Your task to perform on an android device: turn vacation reply on in the gmail app Image 0: 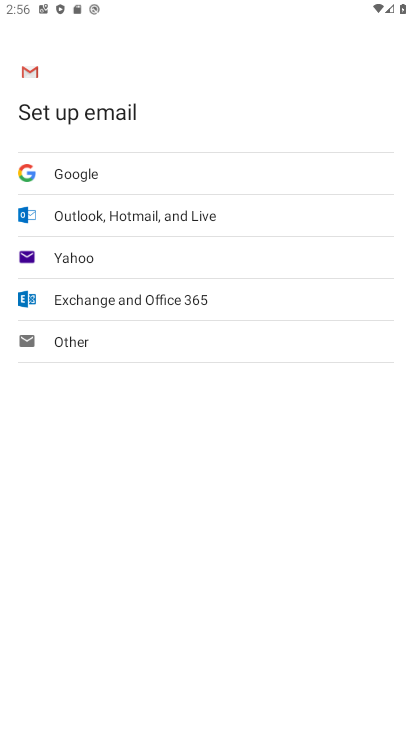
Step 0: press home button
Your task to perform on an android device: turn vacation reply on in the gmail app Image 1: 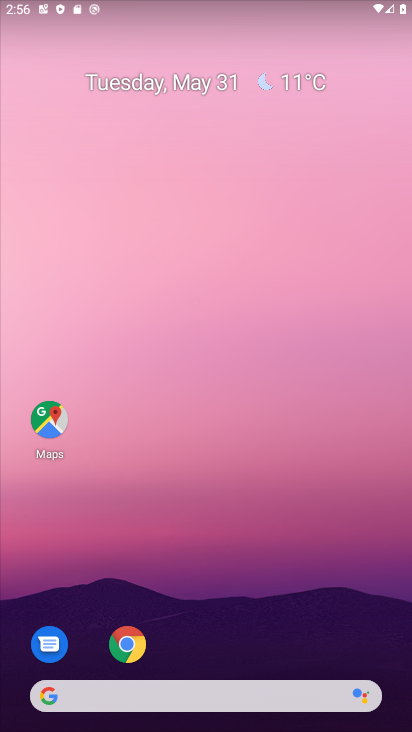
Step 1: click (254, 441)
Your task to perform on an android device: turn vacation reply on in the gmail app Image 2: 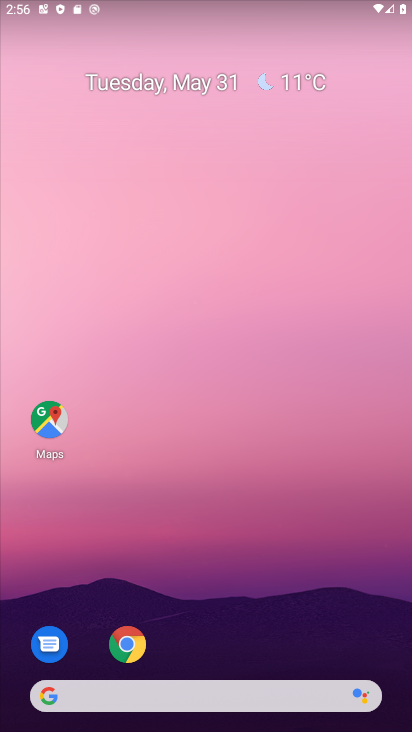
Step 2: drag from (246, 616) to (229, 208)
Your task to perform on an android device: turn vacation reply on in the gmail app Image 3: 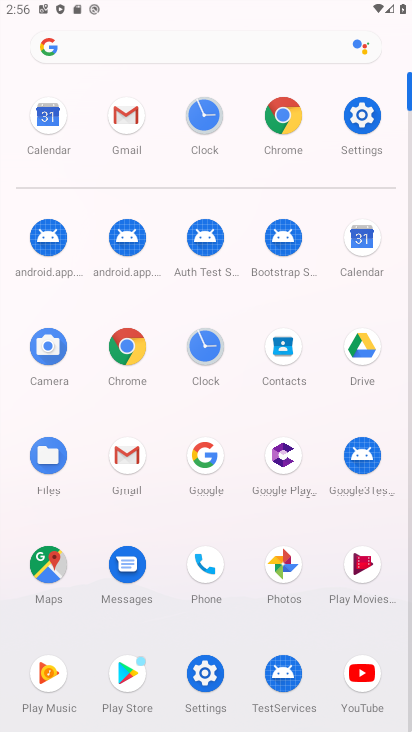
Step 3: click (129, 125)
Your task to perform on an android device: turn vacation reply on in the gmail app Image 4: 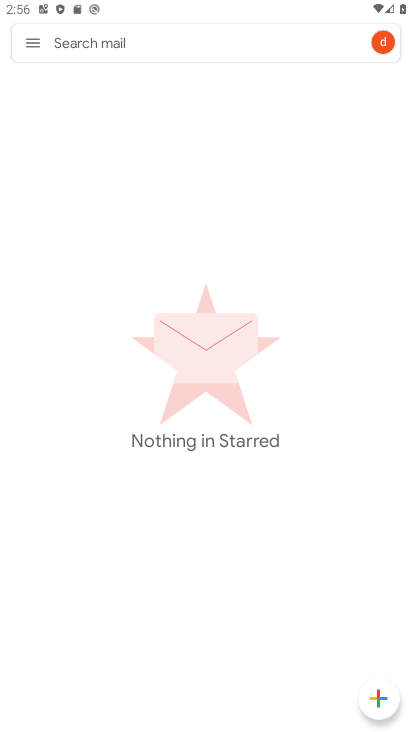
Step 4: click (31, 38)
Your task to perform on an android device: turn vacation reply on in the gmail app Image 5: 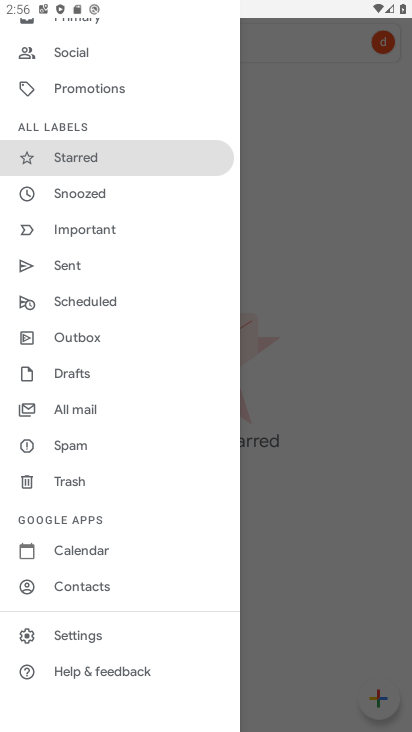
Step 5: click (71, 641)
Your task to perform on an android device: turn vacation reply on in the gmail app Image 6: 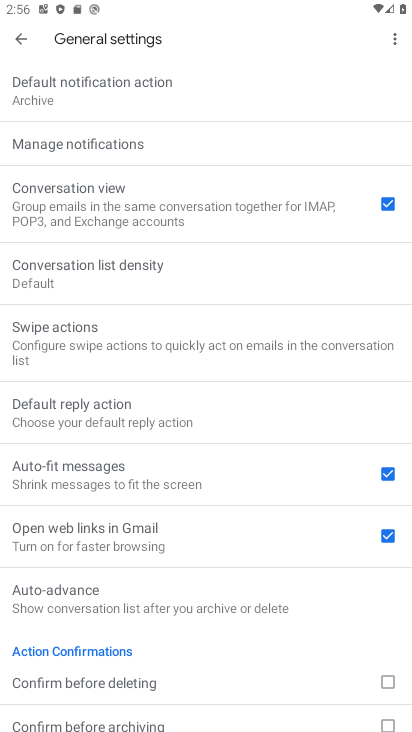
Step 6: drag from (189, 98) to (203, 530)
Your task to perform on an android device: turn vacation reply on in the gmail app Image 7: 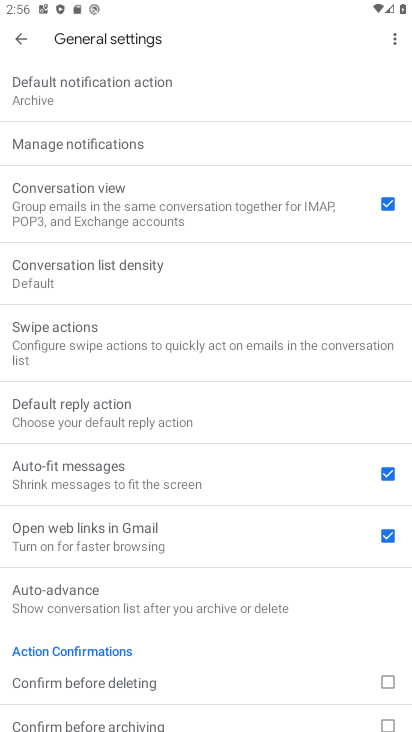
Step 7: drag from (208, 546) to (220, 271)
Your task to perform on an android device: turn vacation reply on in the gmail app Image 8: 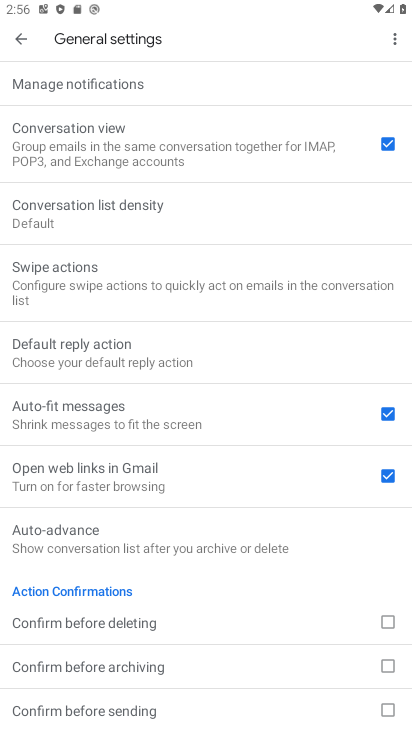
Step 8: drag from (165, 255) to (182, 640)
Your task to perform on an android device: turn vacation reply on in the gmail app Image 9: 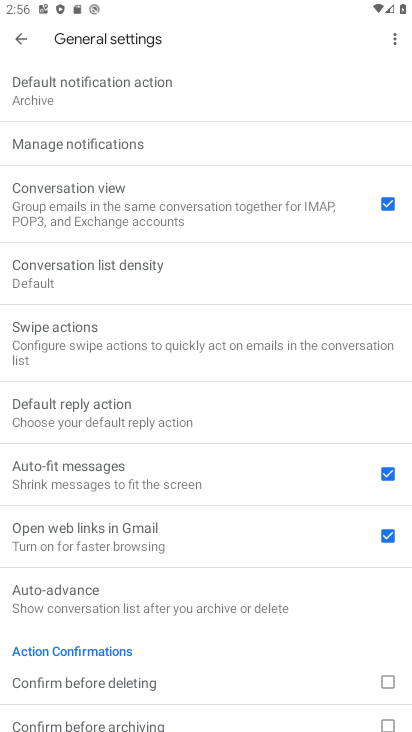
Step 9: drag from (117, 672) to (193, 287)
Your task to perform on an android device: turn vacation reply on in the gmail app Image 10: 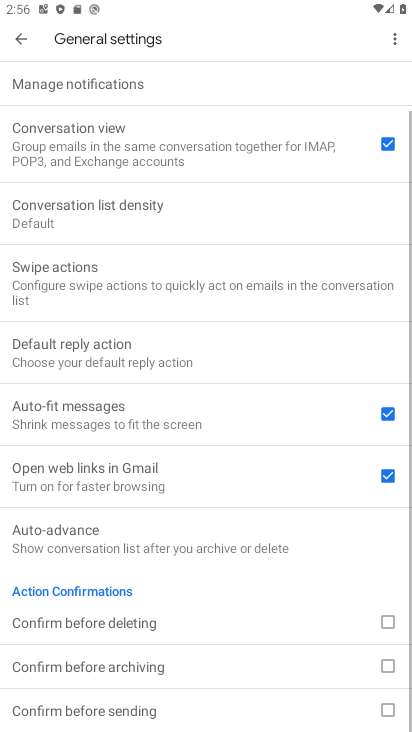
Step 10: drag from (247, 160) to (183, 583)
Your task to perform on an android device: turn vacation reply on in the gmail app Image 11: 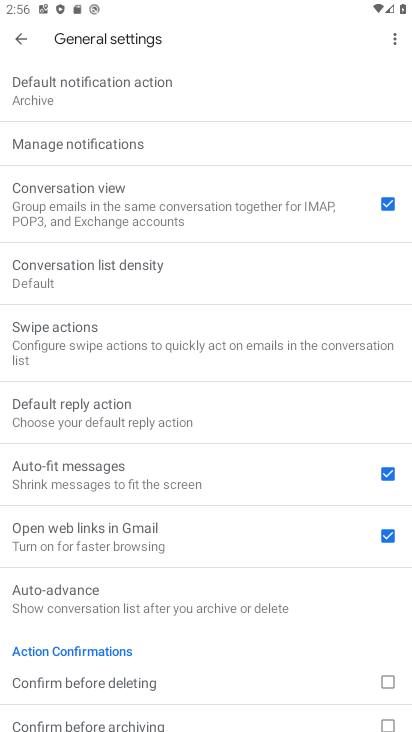
Step 11: click (107, 90)
Your task to perform on an android device: turn vacation reply on in the gmail app Image 12: 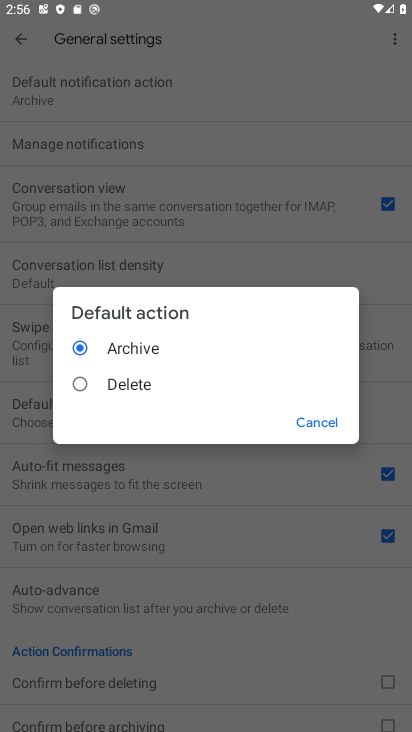
Step 12: click (322, 421)
Your task to perform on an android device: turn vacation reply on in the gmail app Image 13: 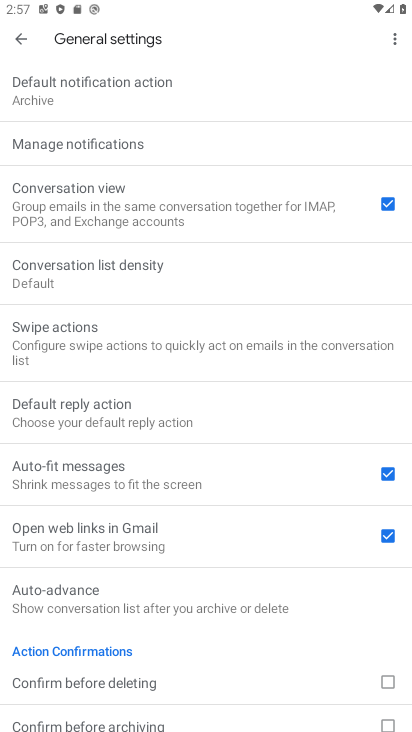
Step 13: task complete